Your task to perform on an android device: find which apps use the phone's location Image 0: 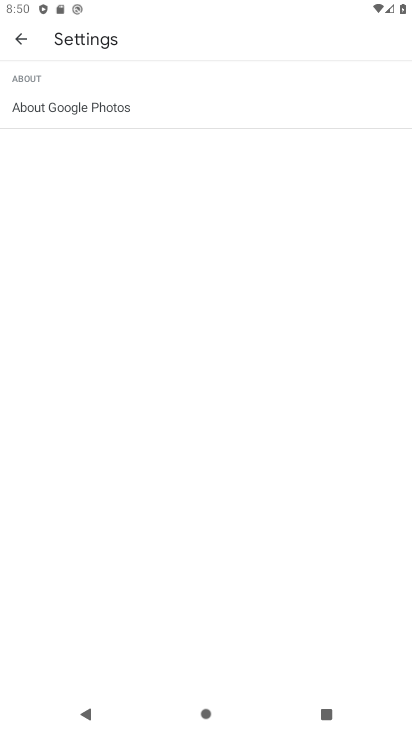
Step 0: press home button
Your task to perform on an android device: find which apps use the phone's location Image 1: 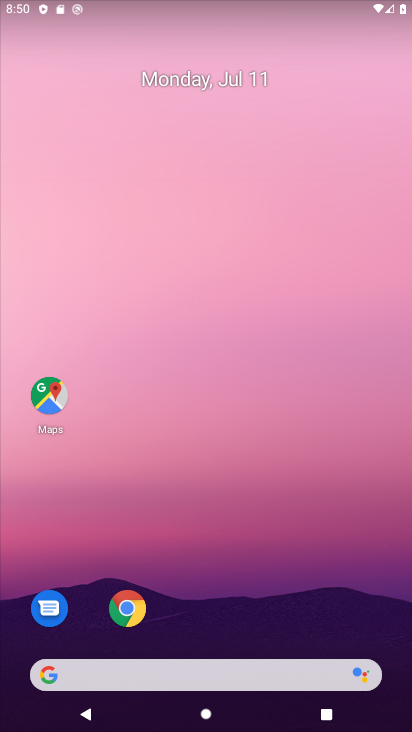
Step 1: drag from (285, 487) to (280, 3)
Your task to perform on an android device: find which apps use the phone's location Image 2: 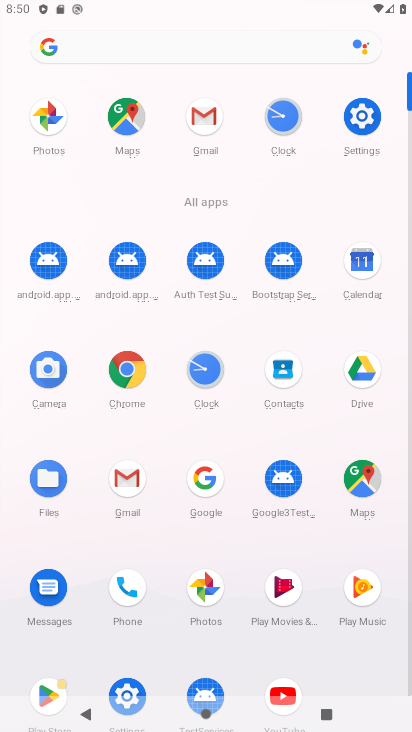
Step 2: click (125, 599)
Your task to perform on an android device: find which apps use the phone's location Image 3: 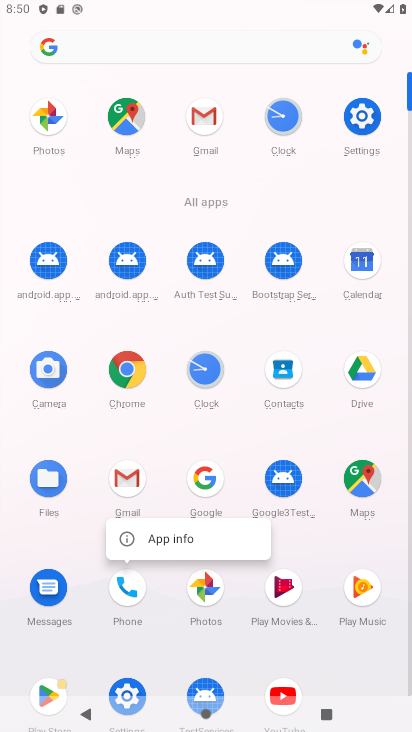
Step 3: click (183, 536)
Your task to perform on an android device: find which apps use the phone's location Image 4: 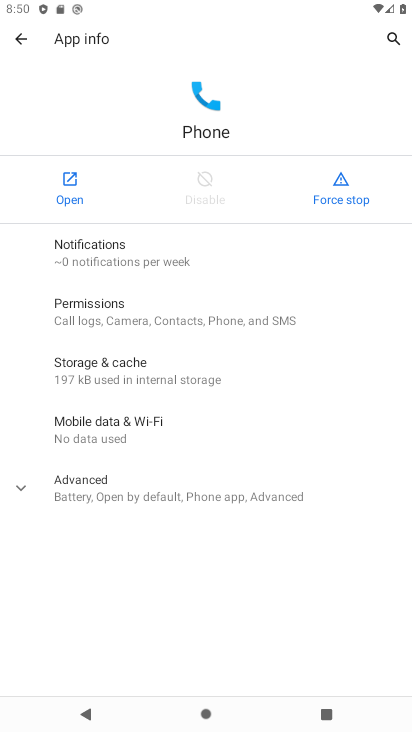
Step 4: click (99, 314)
Your task to perform on an android device: find which apps use the phone's location Image 5: 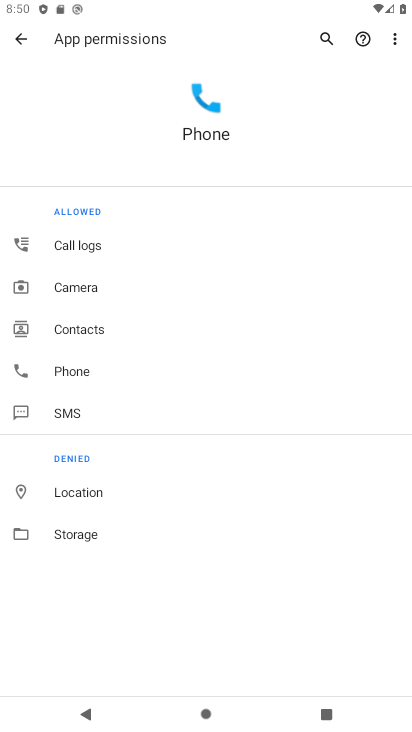
Step 5: click (70, 488)
Your task to perform on an android device: find which apps use the phone's location Image 6: 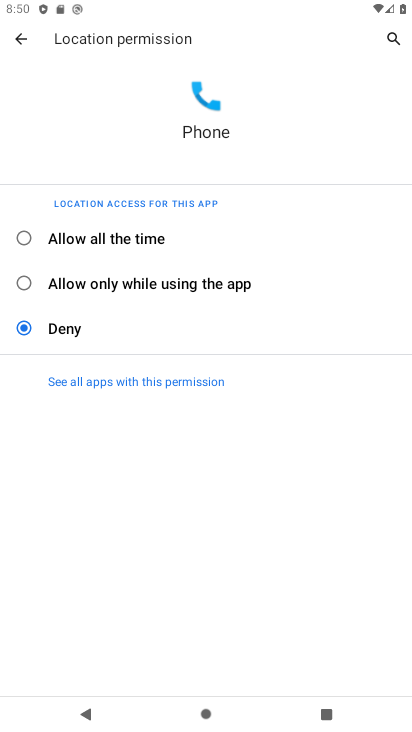
Step 6: task complete